Your task to perform on an android device: move a message to another label in the gmail app Image 0: 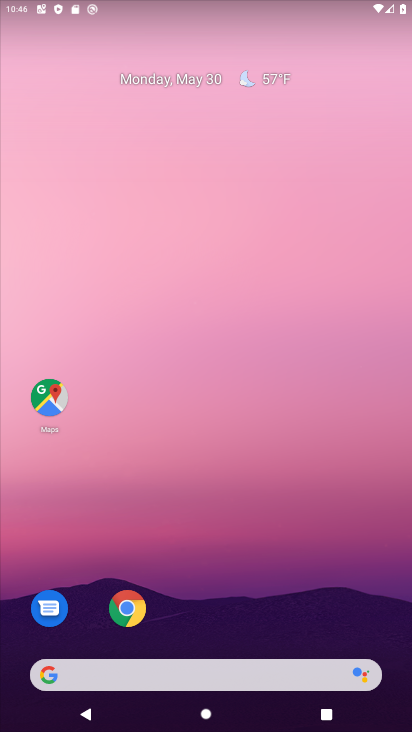
Step 0: drag from (199, 418) to (125, 42)
Your task to perform on an android device: move a message to another label in the gmail app Image 1: 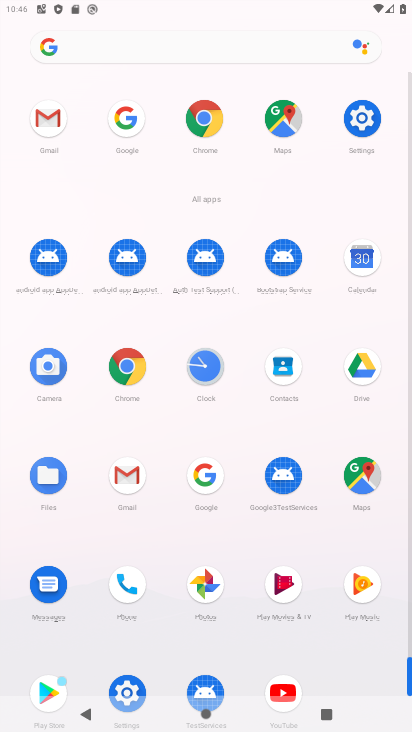
Step 1: drag from (10, 518) to (20, 191)
Your task to perform on an android device: move a message to another label in the gmail app Image 2: 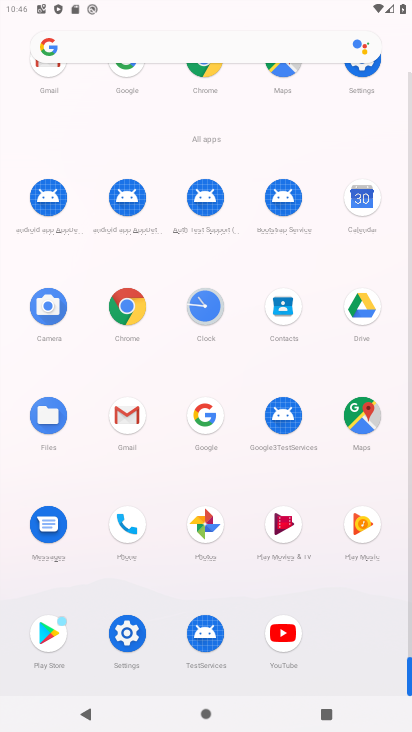
Step 2: click (125, 408)
Your task to perform on an android device: move a message to another label in the gmail app Image 3: 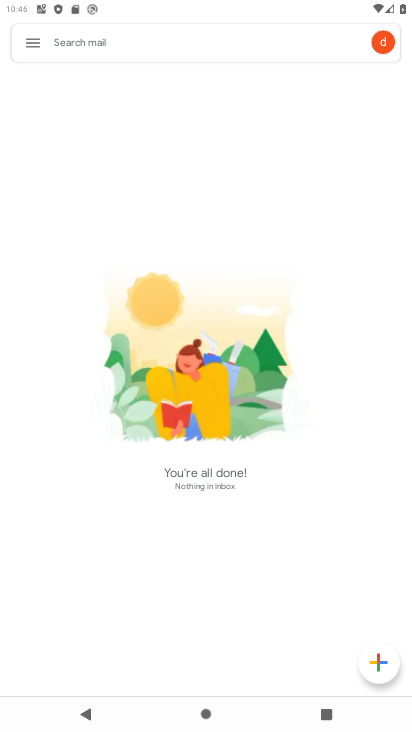
Step 3: click (32, 45)
Your task to perform on an android device: move a message to another label in the gmail app Image 4: 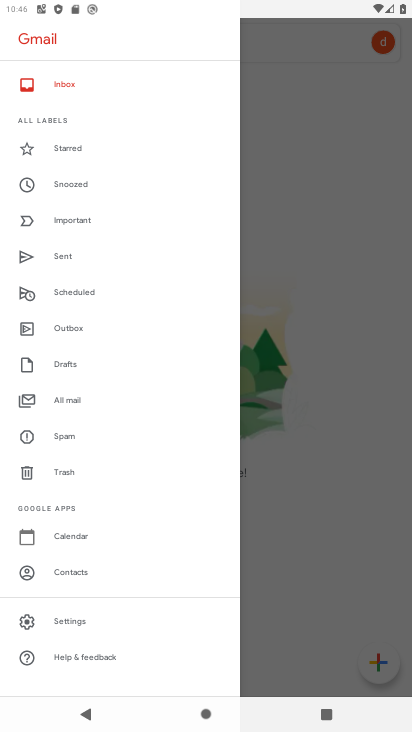
Step 4: click (77, 391)
Your task to perform on an android device: move a message to another label in the gmail app Image 5: 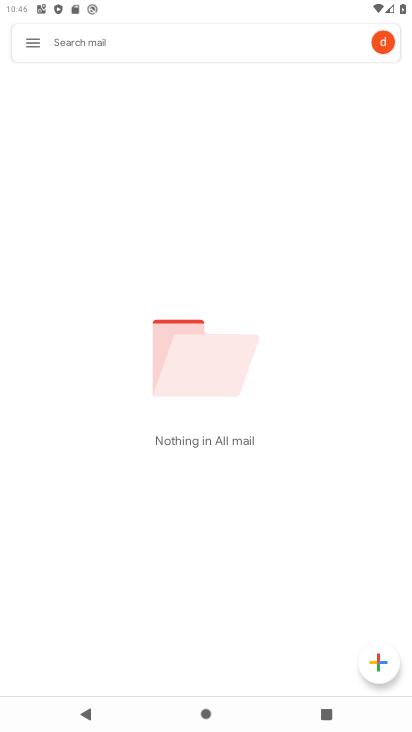
Step 5: click (34, 34)
Your task to perform on an android device: move a message to another label in the gmail app Image 6: 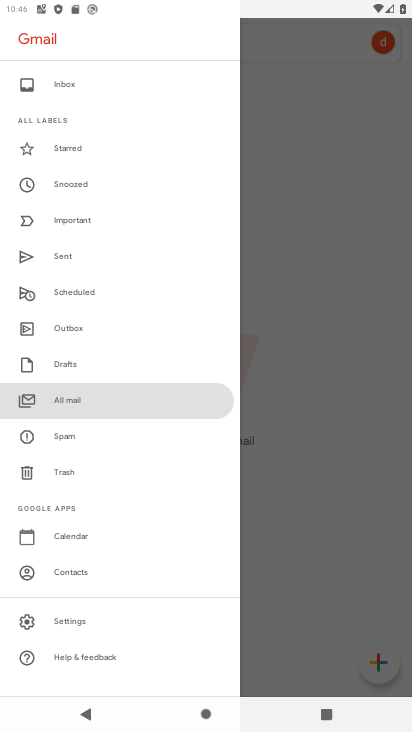
Step 6: click (98, 144)
Your task to perform on an android device: move a message to another label in the gmail app Image 7: 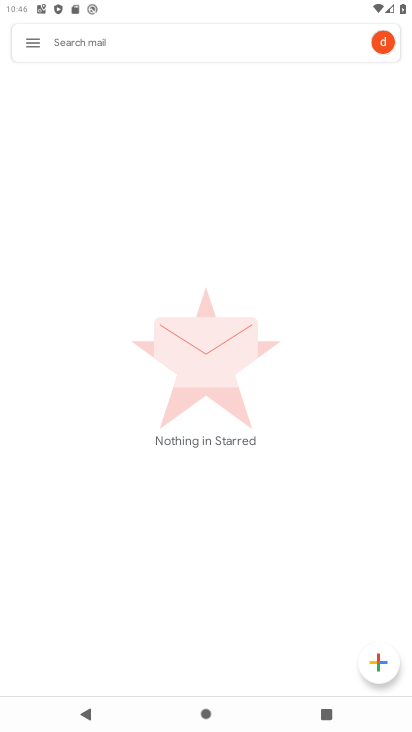
Step 7: click (23, 40)
Your task to perform on an android device: move a message to another label in the gmail app Image 8: 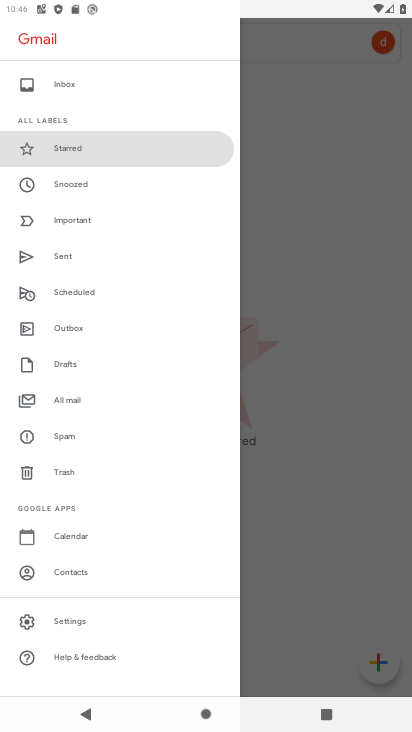
Step 8: drag from (150, 571) to (135, 198)
Your task to perform on an android device: move a message to another label in the gmail app Image 9: 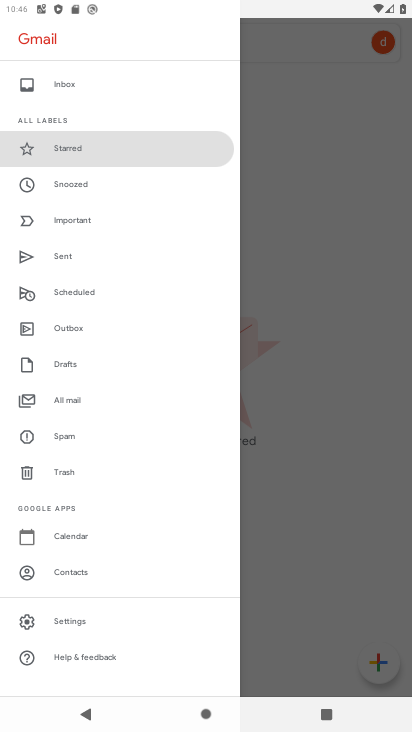
Step 9: click (74, 388)
Your task to perform on an android device: move a message to another label in the gmail app Image 10: 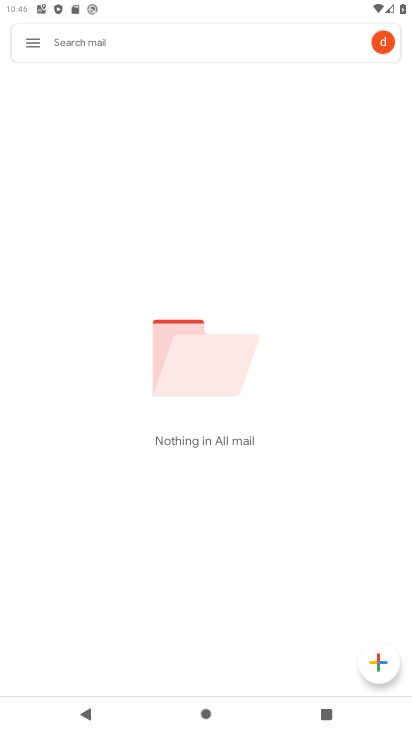
Step 10: task complete